Your task to perform on an android device: set an alarm Image 0: 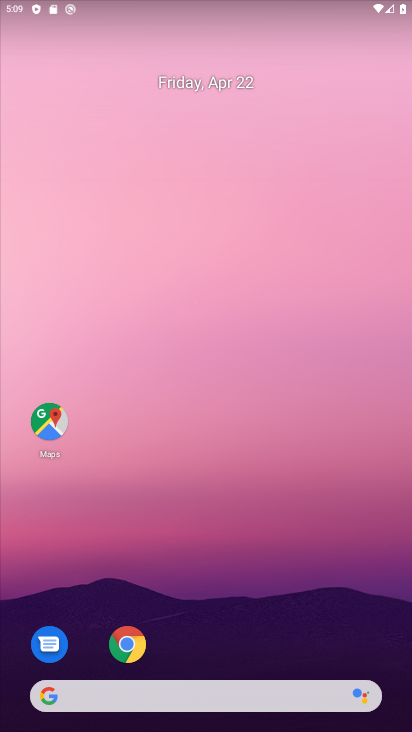
Step 0: drag from (197, 547) to (320, 149)
Your task to perform on an android device: set an alarm Image 1: 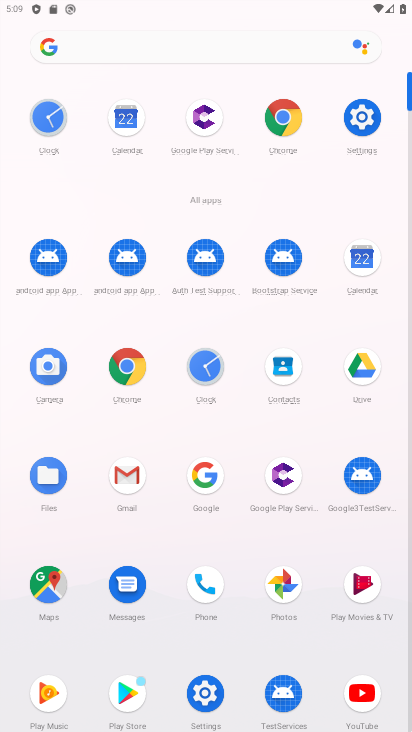
Step 1: click (189, 373)
Your task to perform on an android device: set an alarm Image 2: 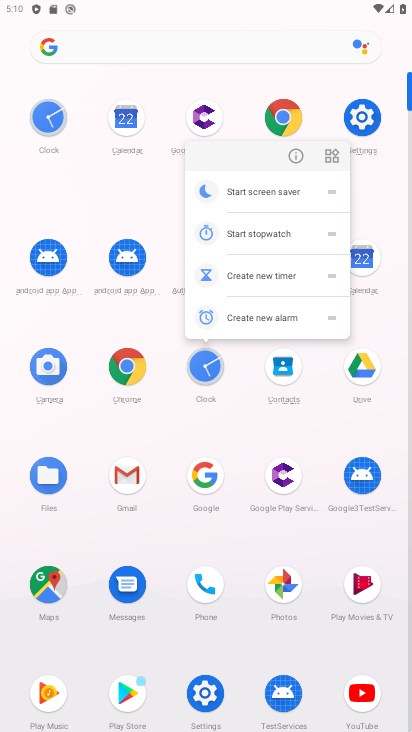
Step 2: click (189, 372)
Your task to perform on an android device: set an alarm Image 3: 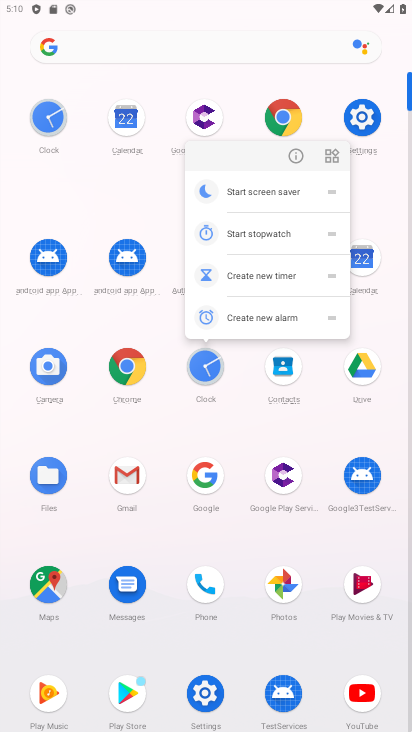
Step 3: click (198, 378)
Your task to perform on an android device: set an alarm Image 4: 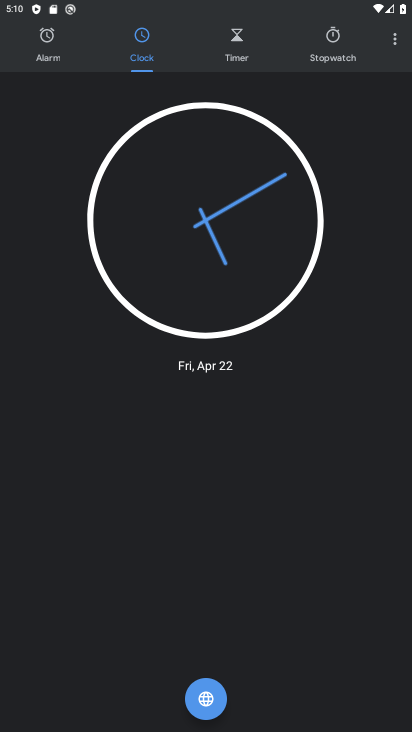
Step 4: click (39, 56)
Your task to perform on an android device: set an alarm Image 5: 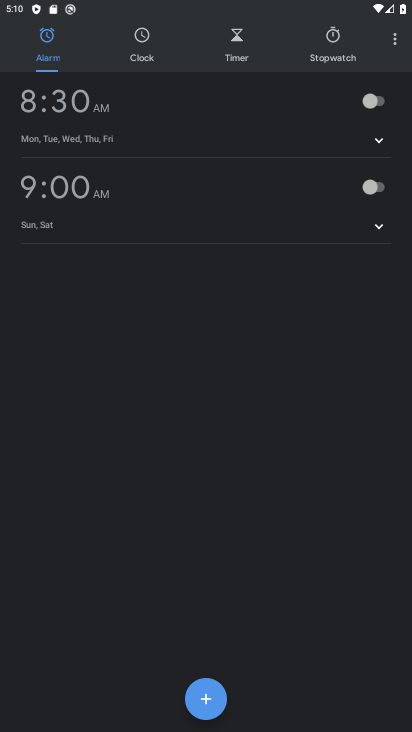
Step 5: click (375, 187)
Your task to perform on an android device: set an alarm Image 6: 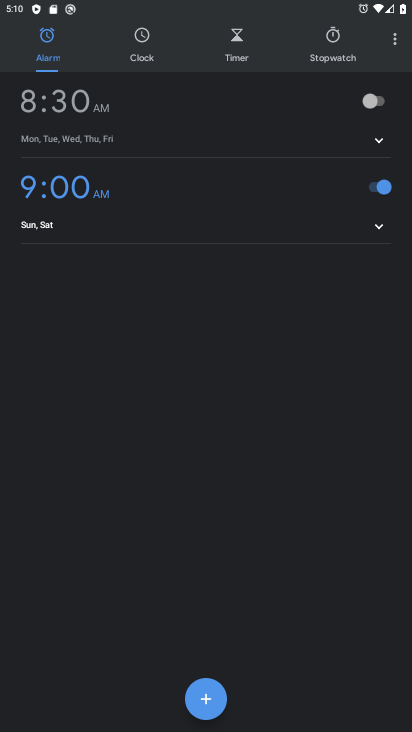
Step 6: task complete